Your task to perform on an android device: What's on my calendar tomorrow? Image 0: 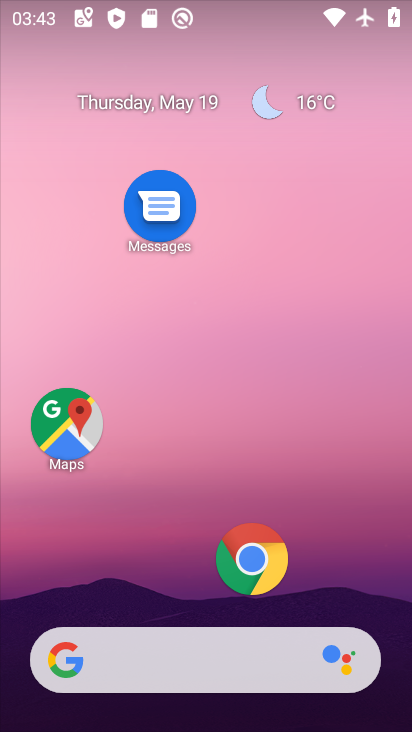
Step 0: drag from (170, 604) to (218, 297)
Your task to perform on an android device: What's on my calendar tomorrow? Image 1: 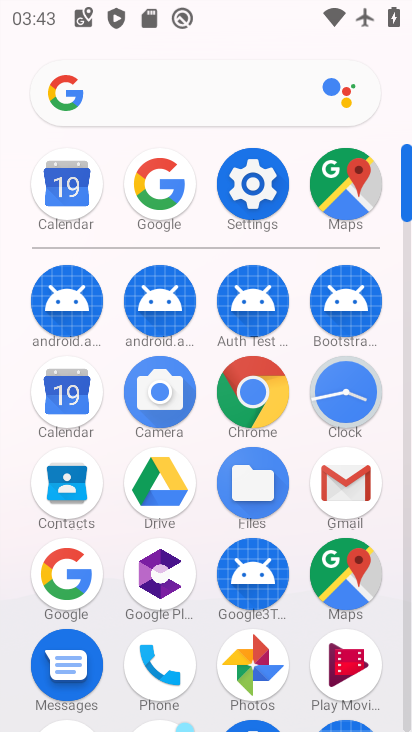
Step 1: click (47, 398)
Your task to perform on an android device: What's on my calendar tomorrow? Image 2: 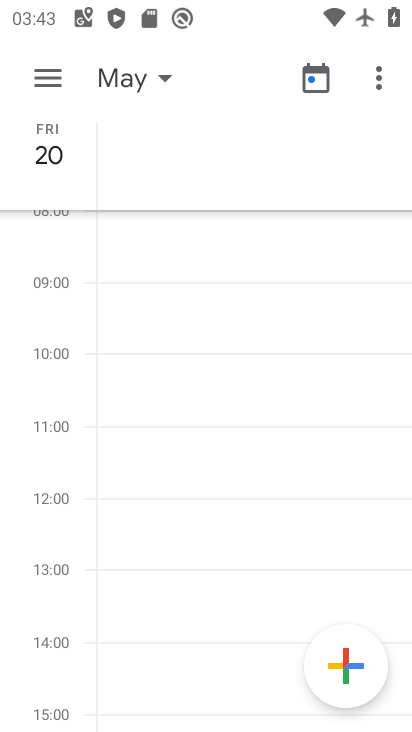
Step 2: click (159, 82)
Your task to perform on an android device: What's on my calendar tomorrow? Image 3: 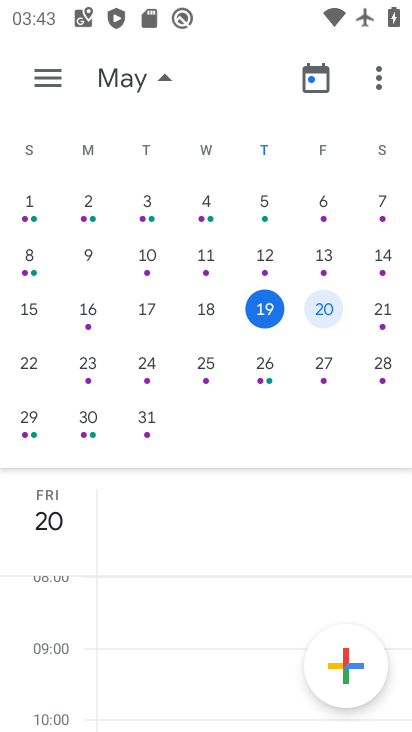
Step 3: click (323, 307)
Your task to perform on an android device: What's on my calendar tomorrow? Image 4: 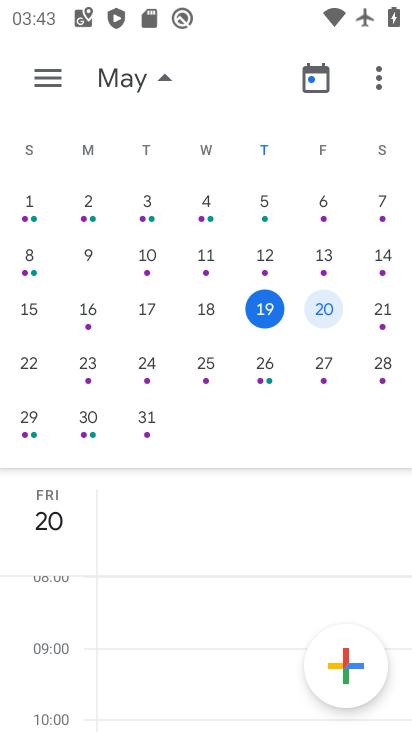
Step 4: task complete